Your task to perform on an android device: turn off location Image 0: 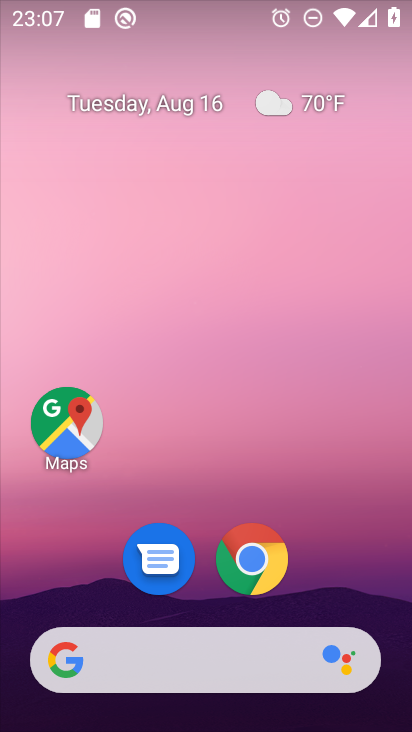
Step 0: drag from (174, 677) to (249, 6)
Your task to perform on an android device: turn off location Image 1: 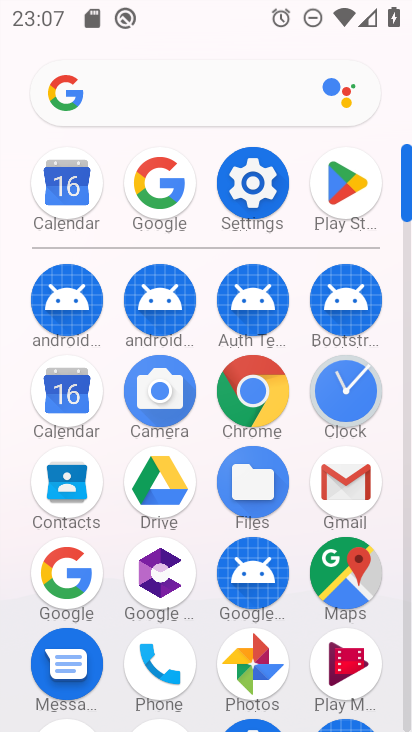
Step 1: click (252, 184)
Your task to perform on an android device: turn off location Image 2: 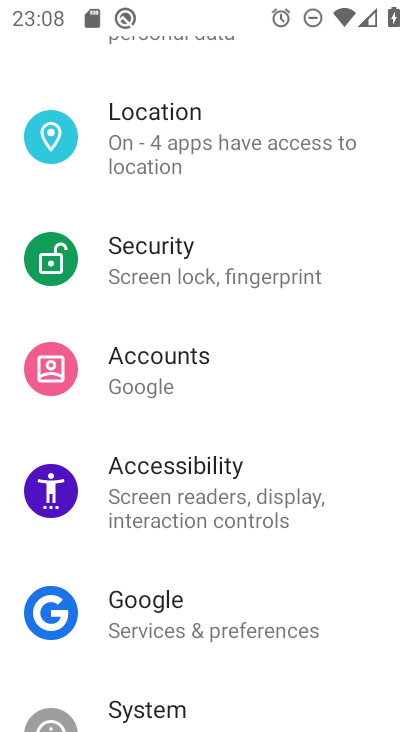
Step 2: click (182, 119)
Your task to perform on an android device: turn off location Image 3: 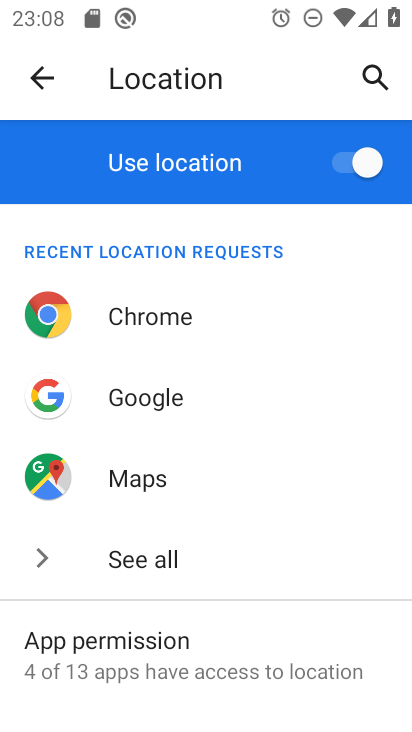
Step 3: click (347, 165)
Your task to perform on an android device: turn off location Image 4: 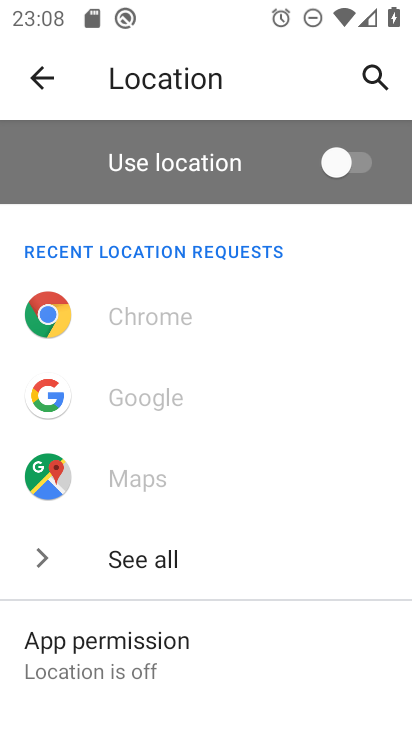
Step 4: task complete